Your task to perform on an android device: turn smart compose on in the gmail app Image 0: 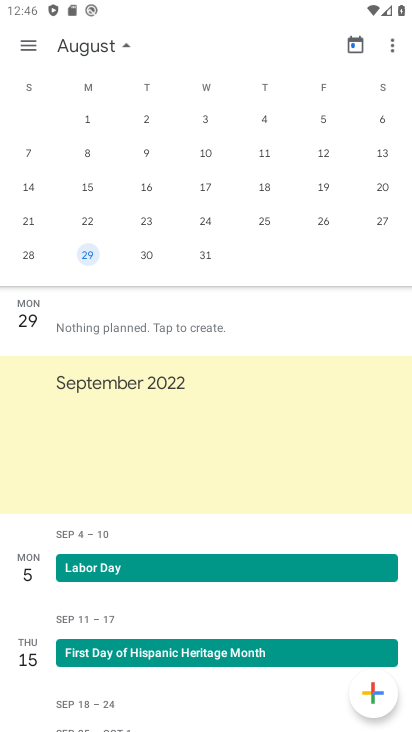
Step 0: press home button
Your task to perform on an android device: turn smart compose on in the gmail app Image 1: 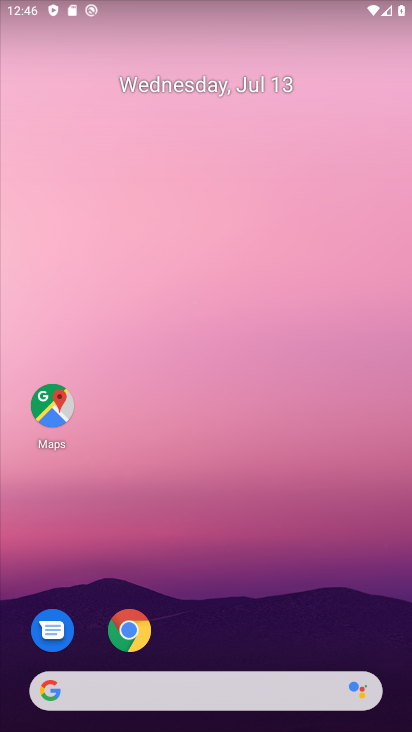
Step 1: drag from (274, 523) to (206, 26)
Your task to perform on an android device: turn smart compose on in the gmail app Image 2: 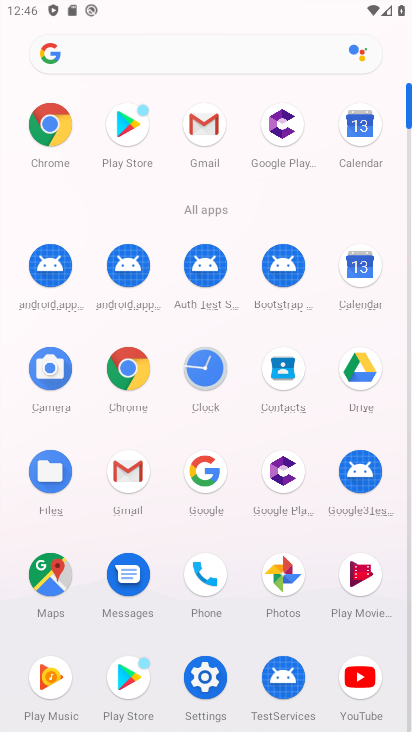
Step 2: click (203, 116)
Your task to perform on an android device: turn smart compose on in the gmail app Image 3: 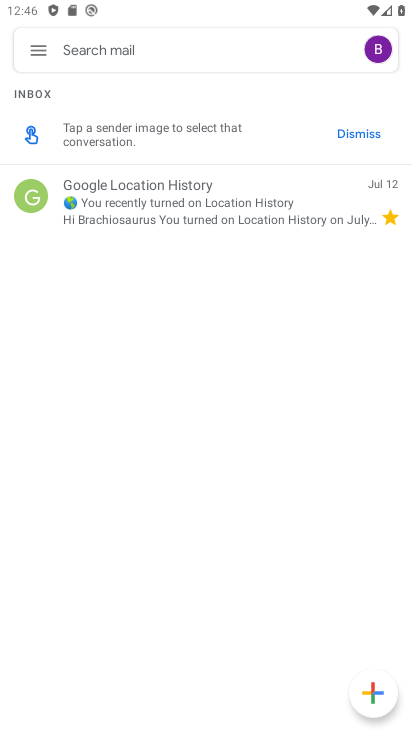
Step 3: click (49, 53)
Your task to perform on an android device: turn smart compose on in the gmail app Image 4: 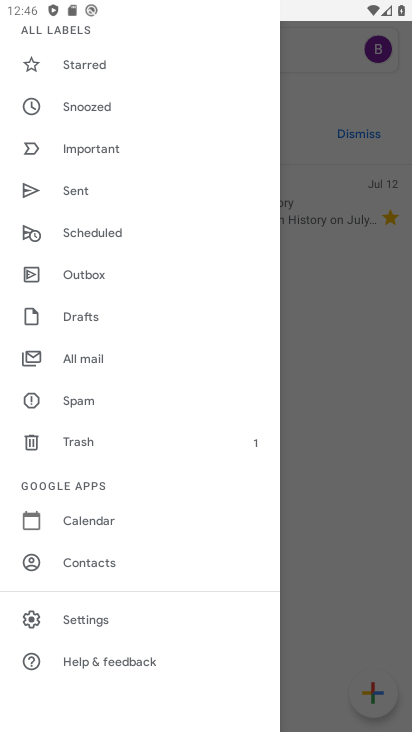
Step 4: click (111, 626)
Your task to perform on an android device: turn smart compose on in the gmail app Image 5: 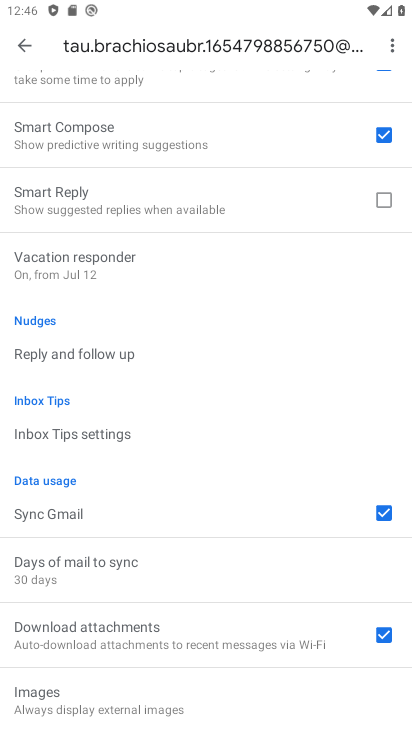
Step 5: task complete